Your task to perform on an android device: Open Google Image 0: 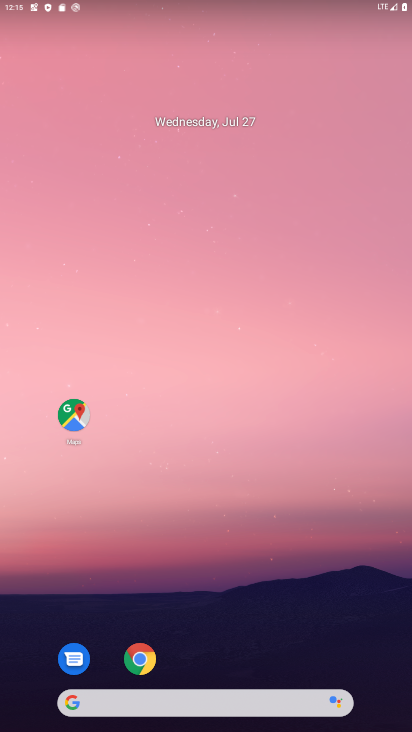
Step 0: drag from (308, 647) to (307, 90)
Your task to perform on an android device: Open Google Image 1: 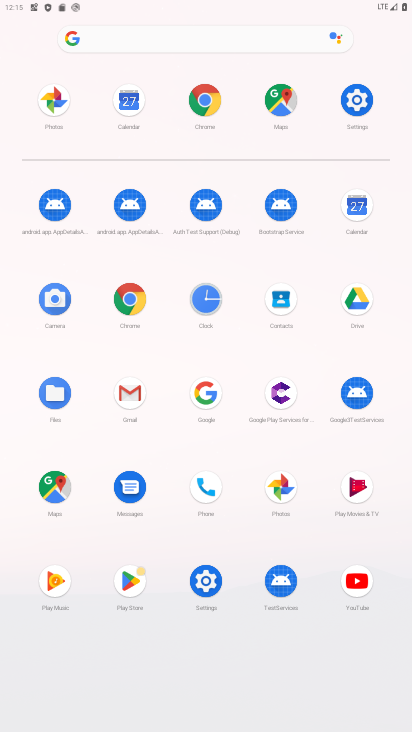
Step 1: click (204, 395)
Your task to perform on an android device: Open Google Image 2: 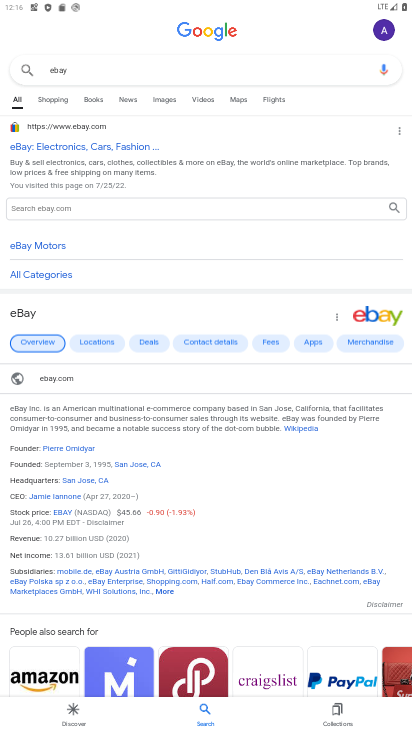
Step 2: click (162, 423)
Your task to perform on an android device: Open Google Image 3: 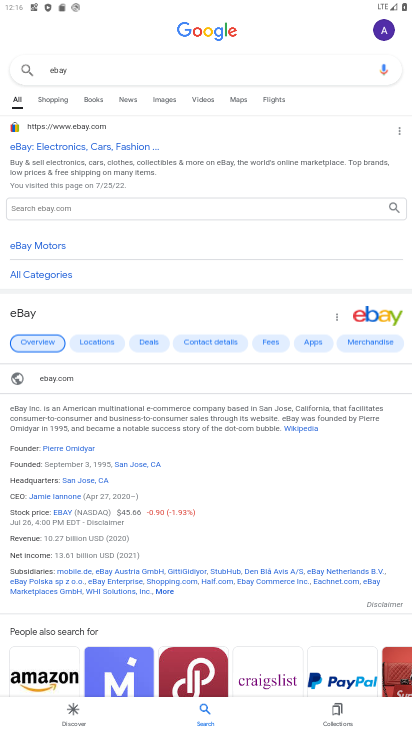
Step 3: click (203, 598)
Your task to perform on an android device: Open Google Image 4: 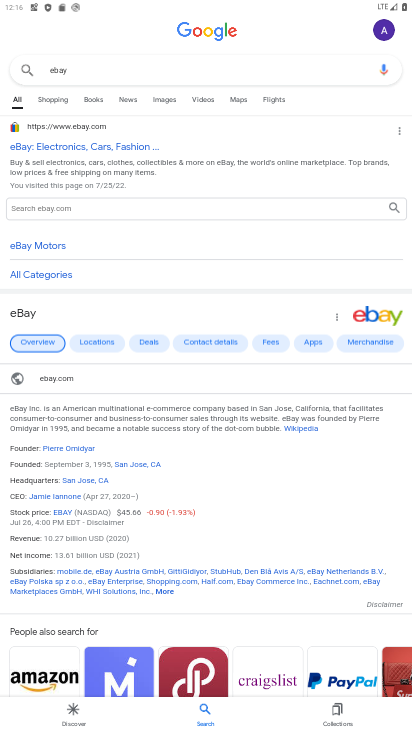
Step 4: task complete